Your task to perform on an android device: clear all cookies in the chrome app Image 0: 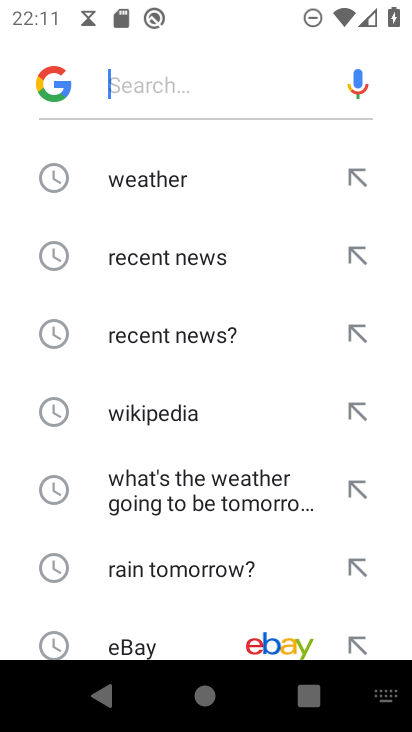
Step 0: press home button
Your task to perform on an android device: clear all cookies in the chrome app Image 1: 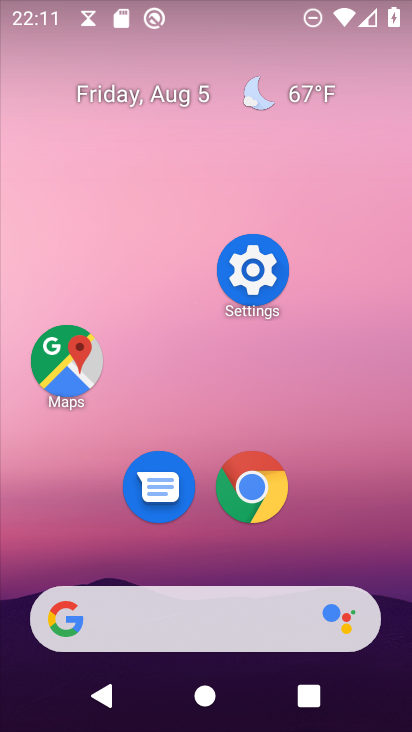
Step 1: click (254, 487)
Your task to perform on an android device: clear all cookies in the chrome app Image 2: 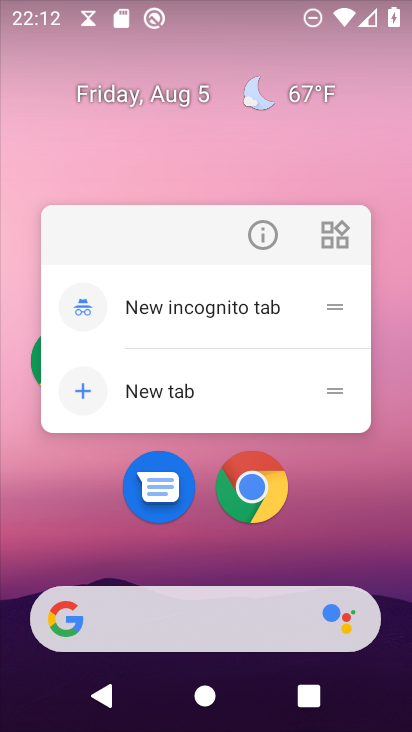
Step 2: click (254, 489)
Your task to perform on an android device: clear all cookies in the chrome app Image 3: 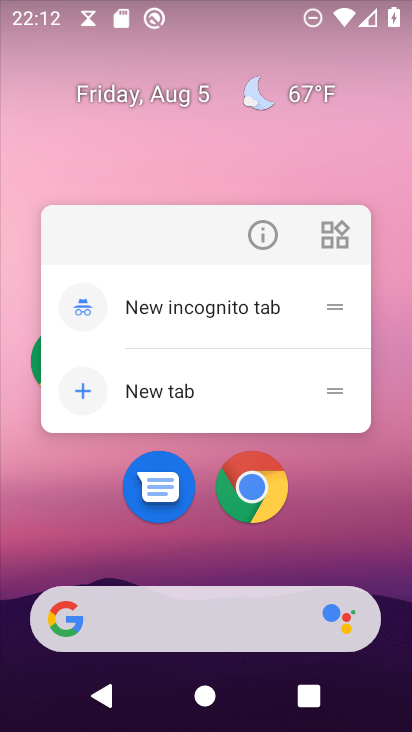
Step 3: click (254, 494)
Your task to perform on an android device: clear all cookies in the chrome app Image 4: 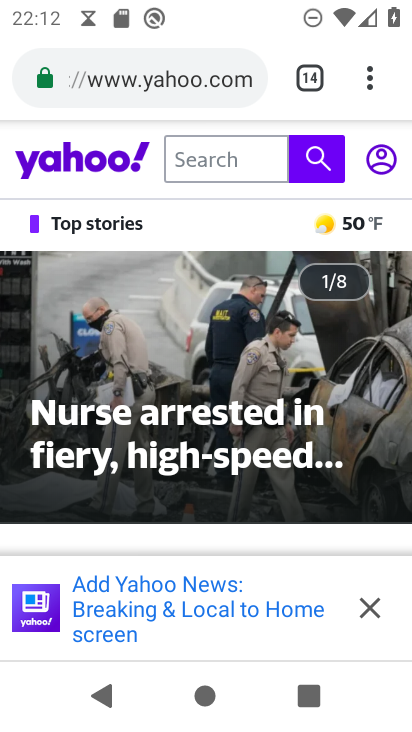
Step 4: drag from (371, 74) to (268, 550)
Your task to perform on an android device: clear all cookies in the chrome app Image 5: 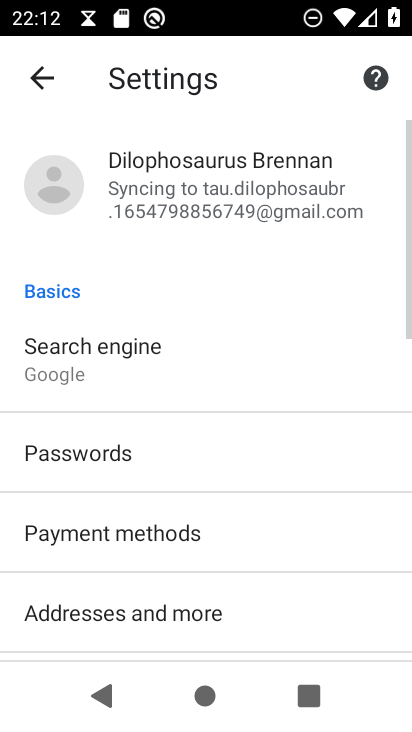
Step 5: drag from (255, 535) to (308, 216)
Your task to perform on an android device: clear all cookies in the chrome app Image 6: 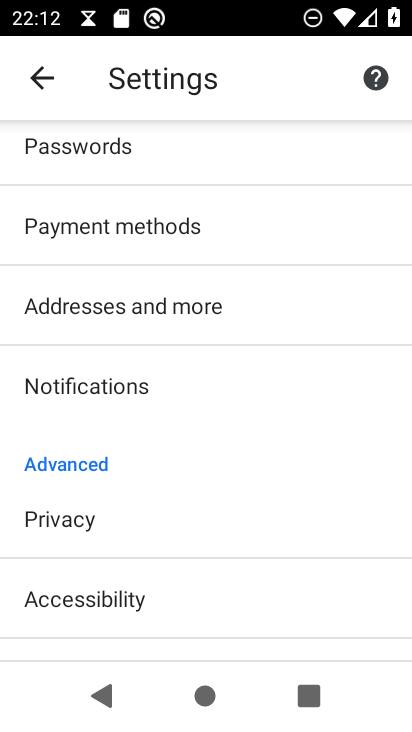
Step 6: drag from (208, 586) to (275, 229)
Your task to perform on an android device: clear all cookies in the chrome app Image 7: 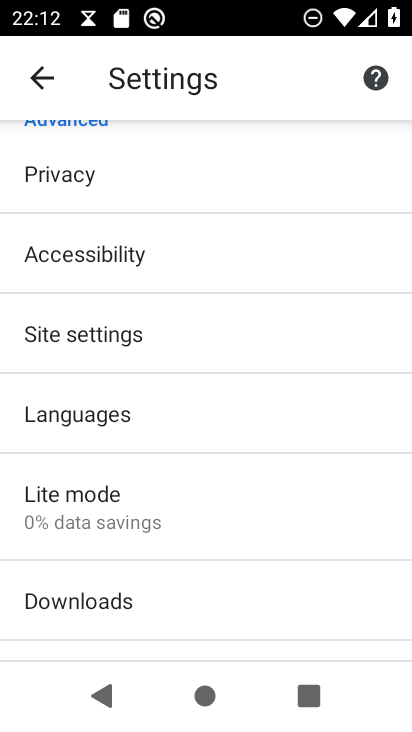
Step 7: click (81, 179)
Your task to perform on an android device: clear all cookies in the chrome app Image 8: 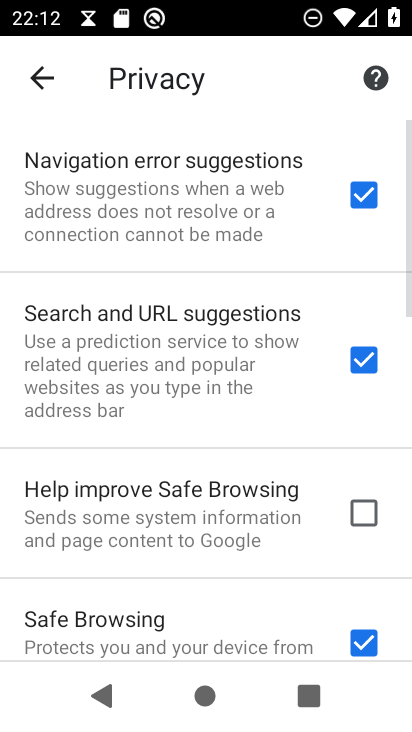
Step 8: drag from (239, 561) to (343, 136)
Your task to perform on an android device: clear all cookies in the chrome app Image 9: 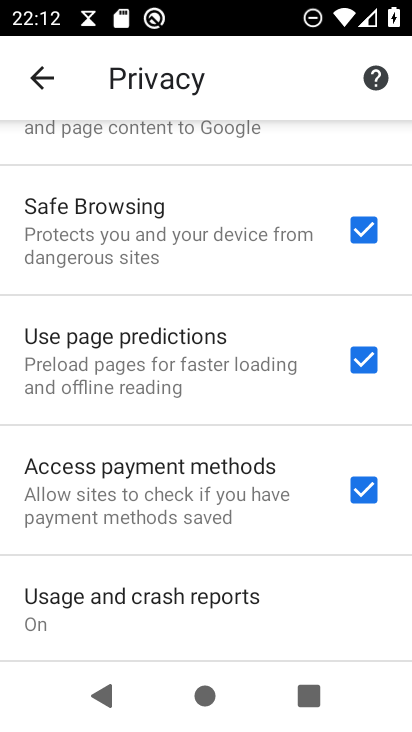
Step 9: drag from (232, 613) to (346, 120)
Your task to perform on an android device: clear all cookies in the chrome app Image 10: 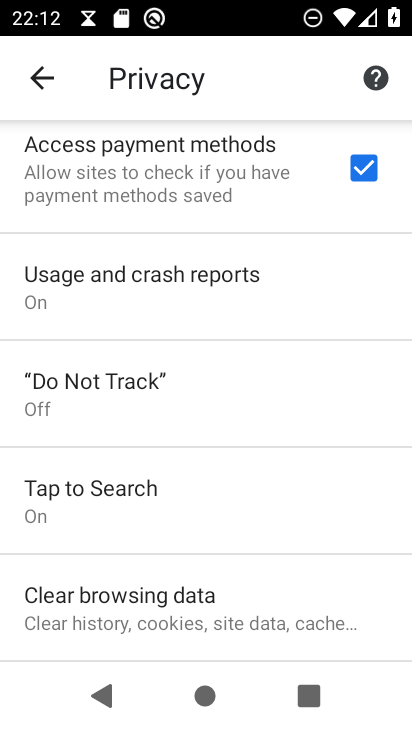
Step 10: click (190, 605)
Your task to perform on an android device: clear all cookies in the chrome app Image 11: 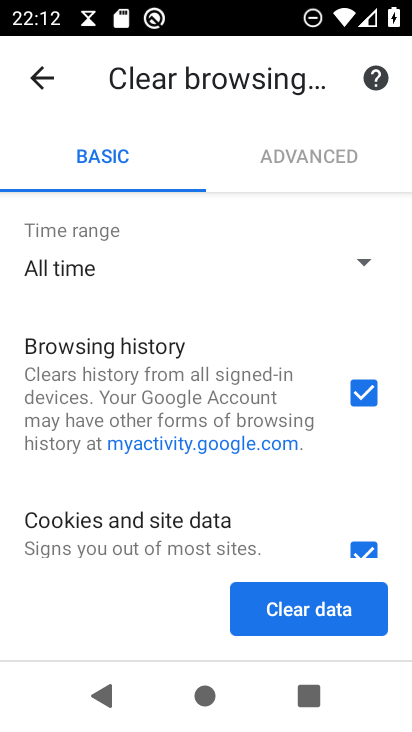
Step 11: drag from (247, 475) to (315, 323)
Your task to perform on an android device: clear all cookies in the chrome app Image 12: 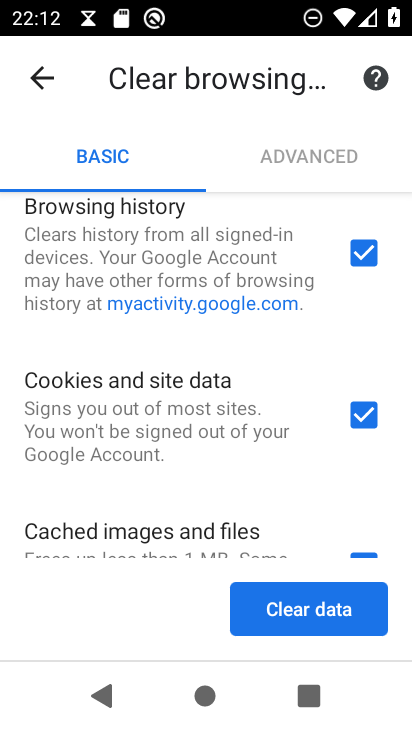
Step 12: drag from (256, 493) to (289, 410)
Your task to perform on an android device: clear all cookies in the chrome app Image 13: 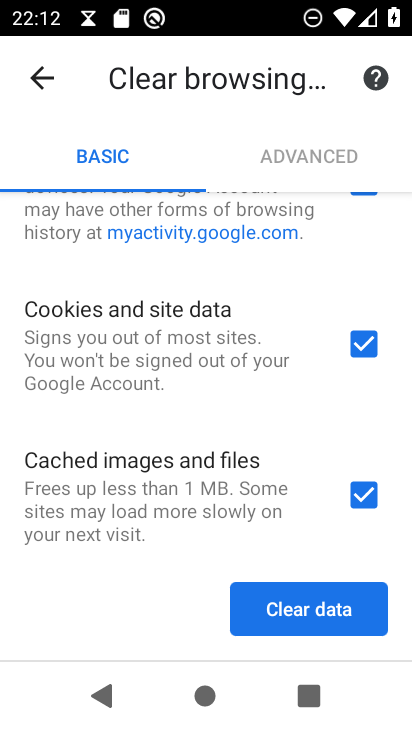
Step 13: drag from (339, 245) to (327, 355)
Your task to perform on an android device: clear all cookies in the chrome app Image 14: 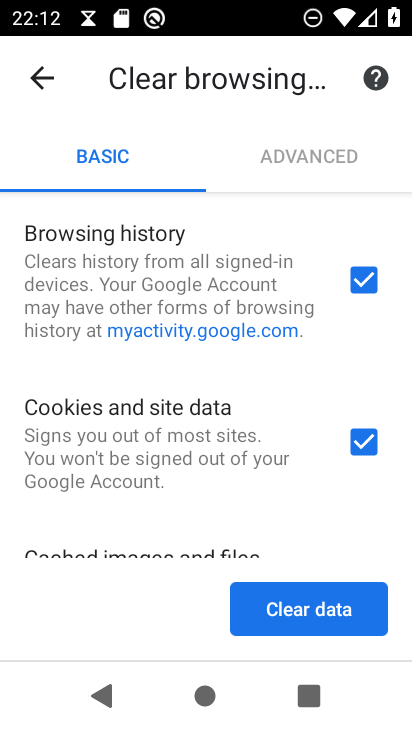
Step 14: click (361, 274)
Your task to perform on an android device: clear all cookies in the chrome app Image 15: 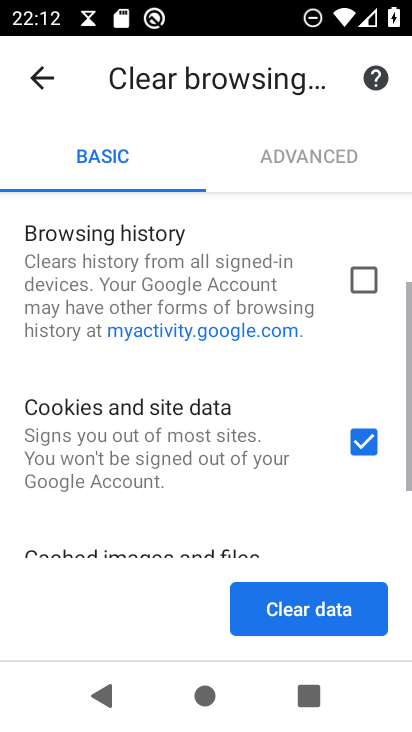
Step 15: drag from (264, 513) to (331, 293)
Your task to perform on an android device: clear all cookies in the chrome app Image 16: 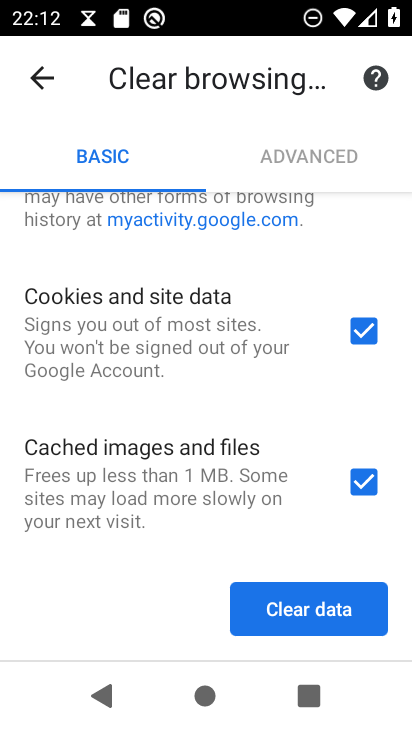
Step 16: click (358, 475)
Your task to perform on an android device: clear all cookies in the chrome app Image 17: 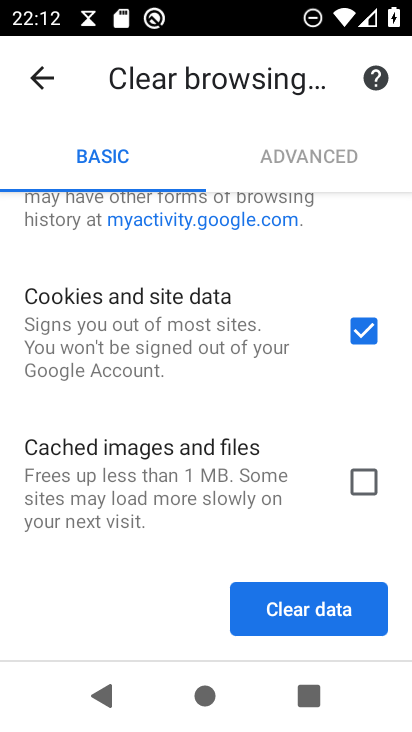
Step 17: click (325, 614)
Your task to perform on an android device: clear all cookies in the chrome app Image 18: 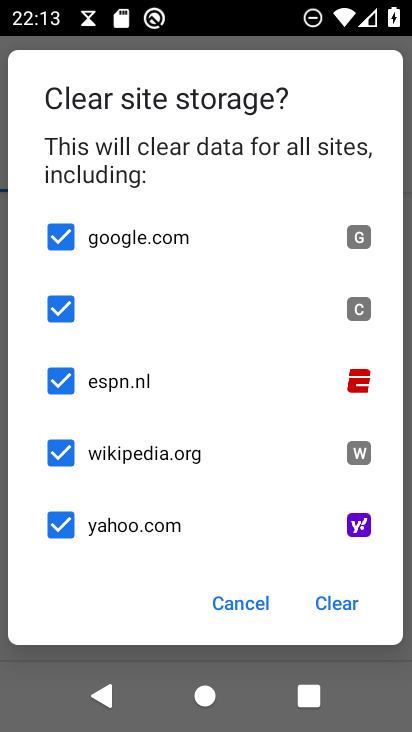
Step 18: click (327, 606)
Your task to perform on an android device: clear all cookies in the chrome app Image 19: 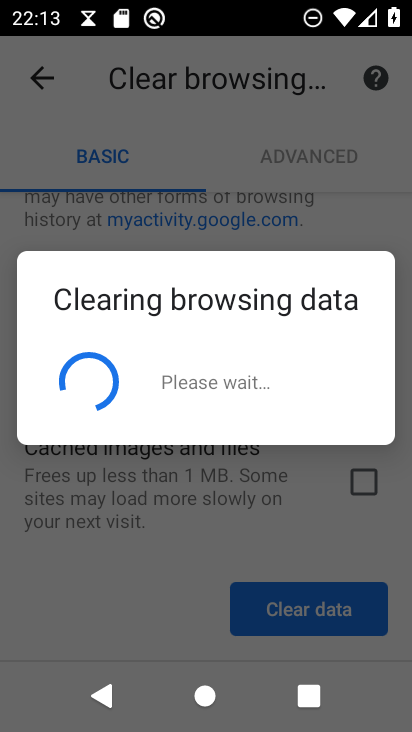
Step 19: click (316, 617)
Your task to perform on an android device: clear all cookies in the chrome app Image 20: 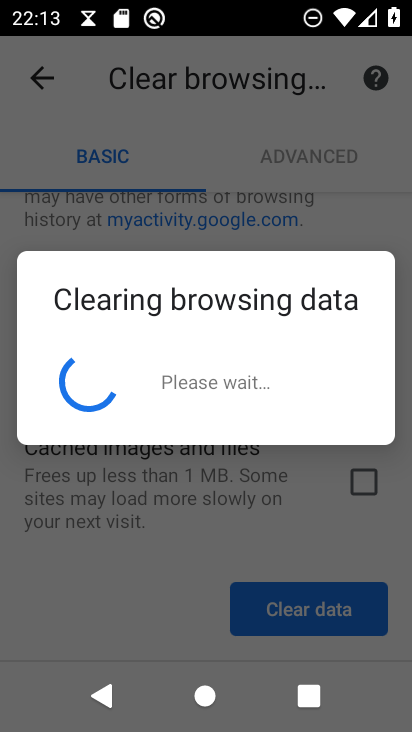
Step 20: task complete